Your task to perform on an android device: How much does the TCL TV cost? Image 0: 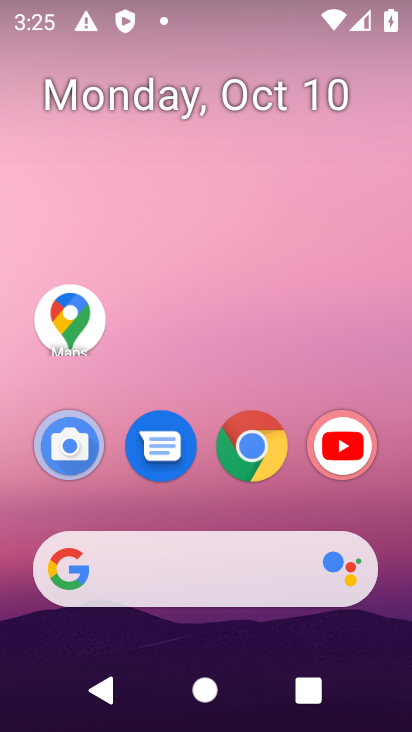
Step 0: click (196, 584)
Your task to perform on an android device: How much does the TCL TV cost? Image 1: 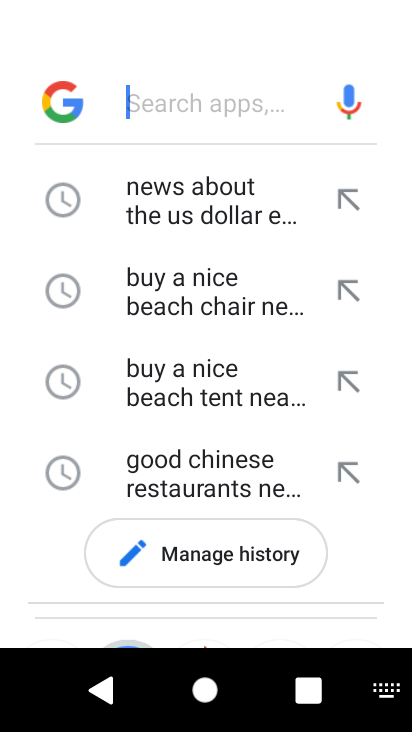
Step 1: type "TCL TV cost"
Your task to perform on an android device: How much does the TCL TV cost? Image 2: 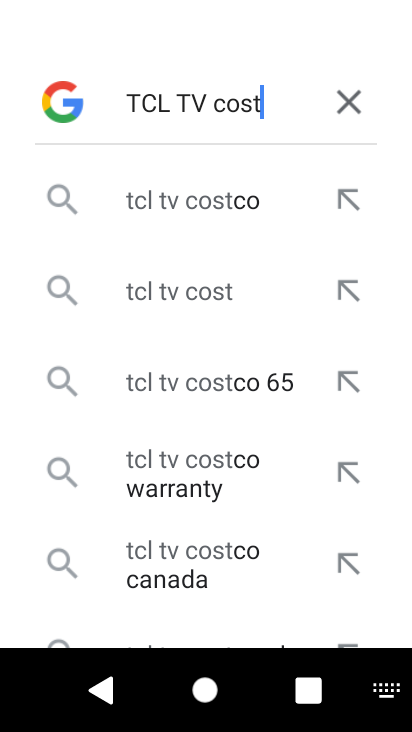
Step 2: type ""
Your task to perform on an android device: How much does the TCL TV cost? Image 3: 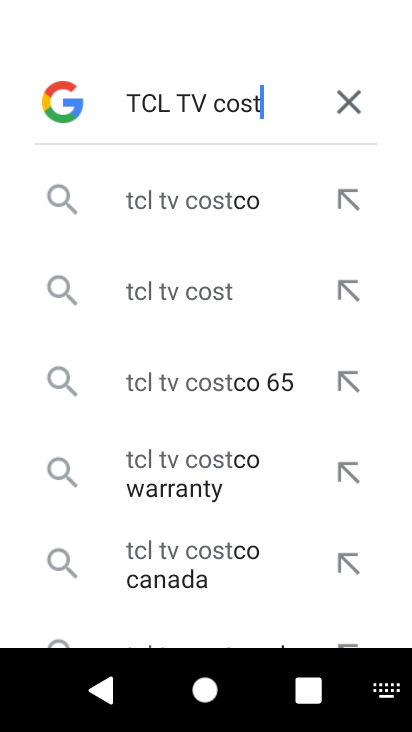
Step 3: click (219, 284)
Your task to perform on an android device: How much does the TCL TV cost? Image 4: 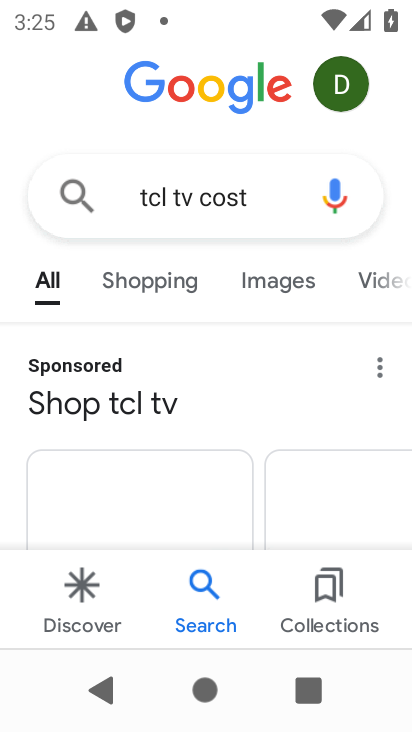
Step 4: task complete